Your task to perform on an android device: Open Google Chrome and open the bookmarks view Image 0: 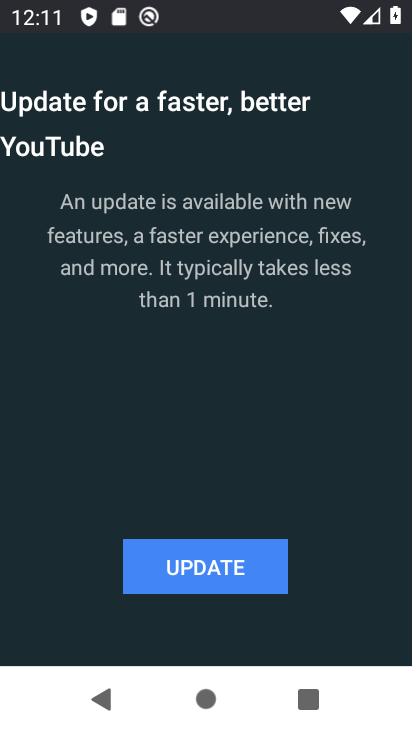
Step 0: drag from (320, 544) to (393, 432)
Your task to perform on an android device: Open Google Chrome and open the bookmarks view Image 1: 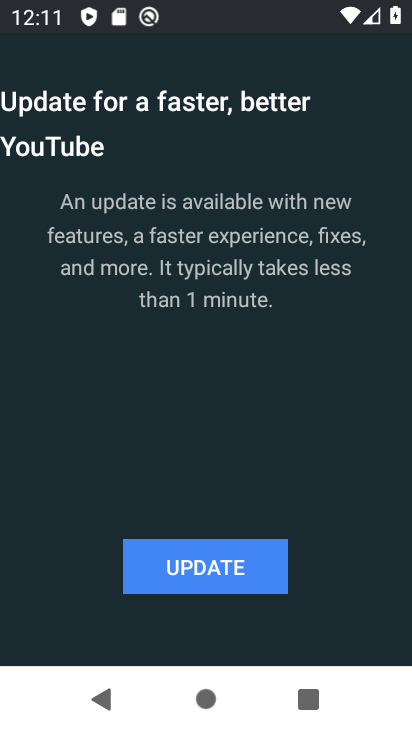
Step 1: press home button
Your task to perform on an android device: Open Google Chrome and open the bookmarks view Image 2: 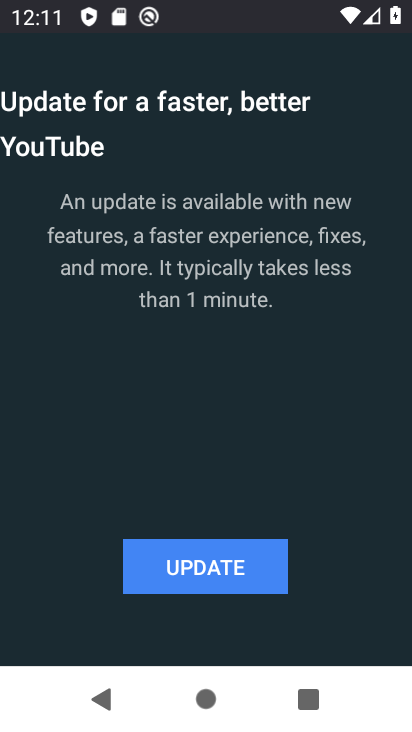
Step 2: press home button
Your task to perform on an android device: Open Google Chrome and open the bookmarks view Image 3: 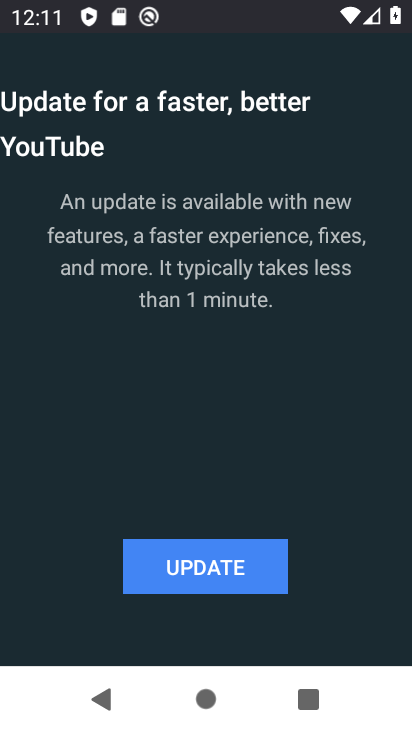
Step 3: click (393, 432)
Your task to perform on an android device: Open Google Chrome and open the bookmarks view Image 4: 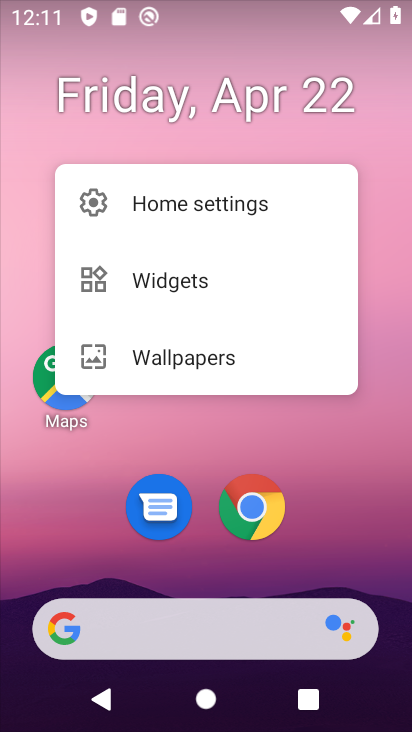
Step 4: click (267, 516)
Your task to perform on an android device: Open Google Chrome and open the bookmarks view Image 5: 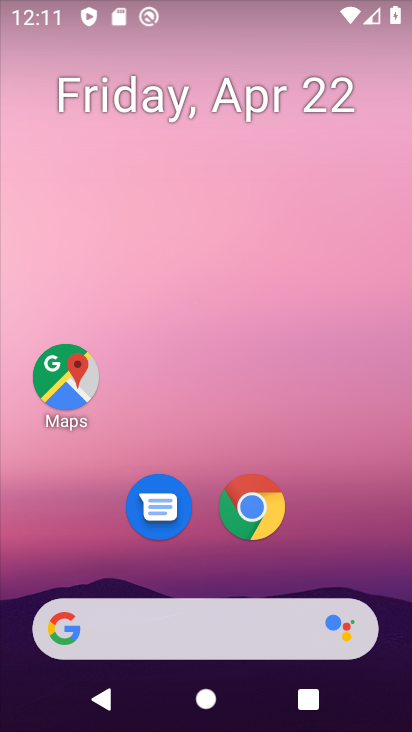
Step 5: click (256, 508)
Your task to perform on an android device: Open Google Chrome and open the bookmarks view Image 6: 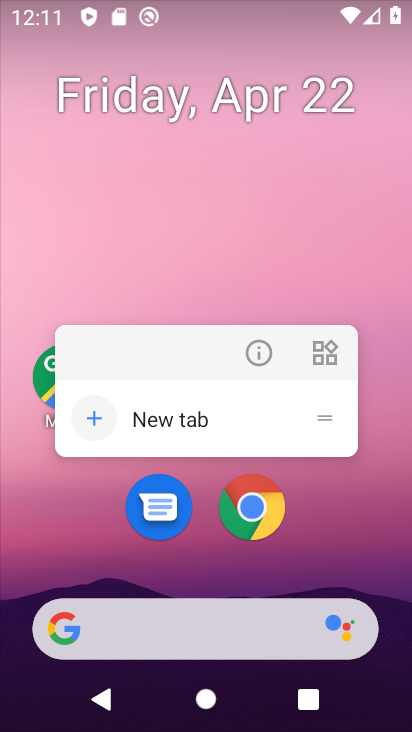
Step 6: click (256, 508)
Your task to perform on an android device: Open Google Chrome and open the bookmarks view Image 7: 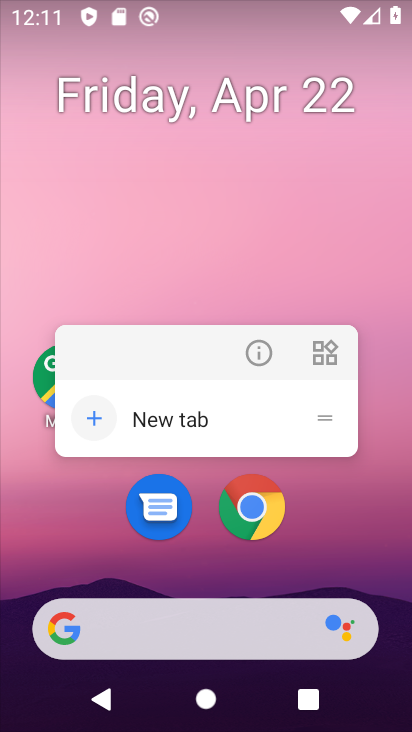
Step 7: click (263, 511)
Your task to perform on an android device: Open Google Chrome and open the bookmarks view Image 8: 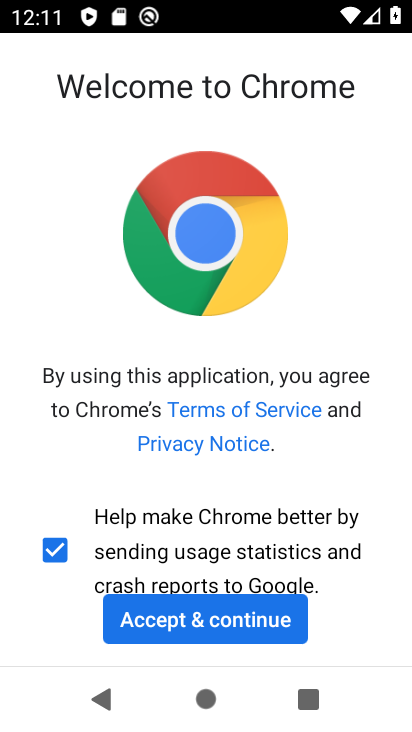
Step 8: click (176, 612)
Your task to perform on an android device: Open Google Chrome and open the bookmarks view Image 9: 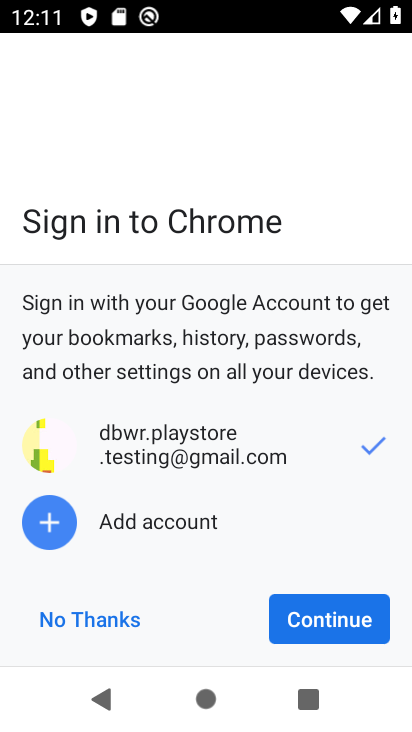
Step 9: click (311, 626)
Your task to perform on an android device: Open Google Chrome and open the bookmarks view Image 10: 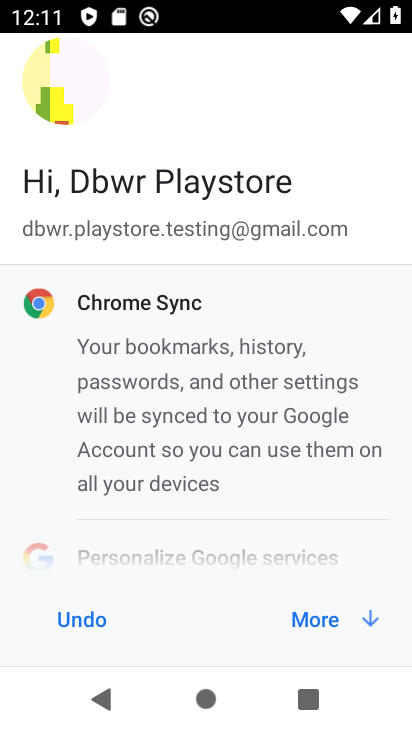
Step 10: click (312, 622)
Your task to perform on an android device: Open Google Chrome and open the bookmarks view Image 11: 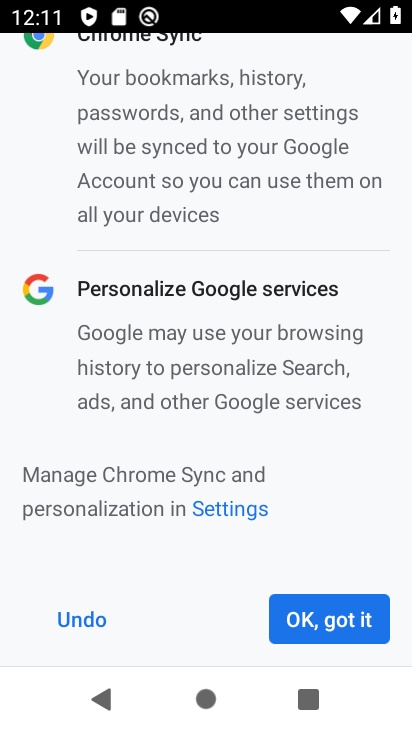
Step 11: click (312, 622)
Your task to perform on an android device: Open Google Chrome and open the bookmarks view Image 12: 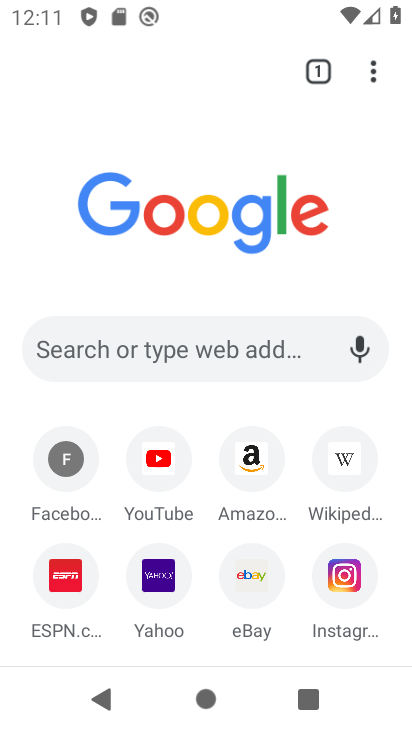
Step 12: task complete